Your task to perform on an android device: turn on location history Image 0: 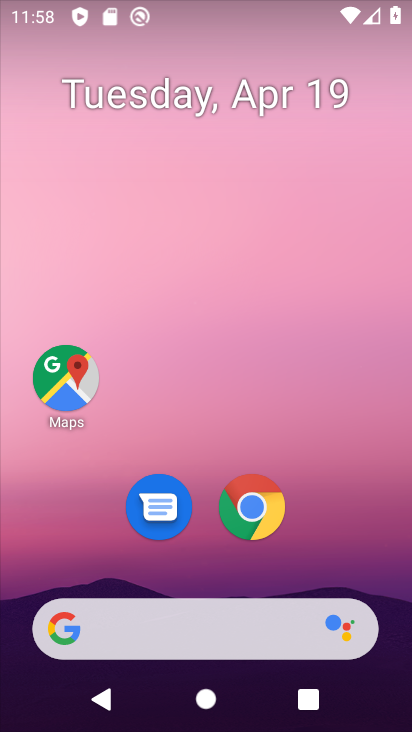
Step 0: drag from (370, 571) to (339, 178)
Your task to perform on an android device: turn on location history Image 1: 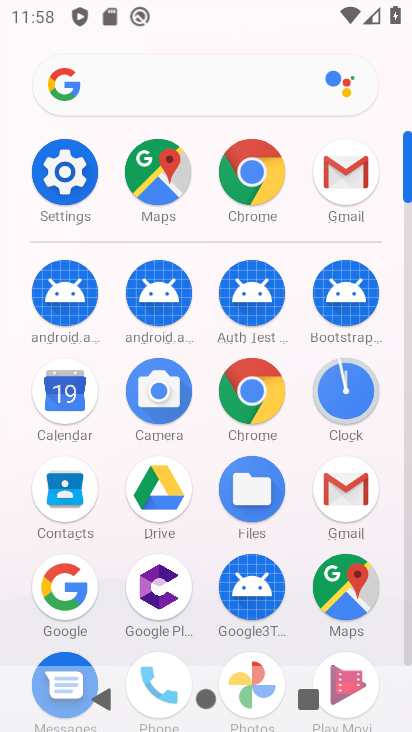
Step 1: click (81, 174)
Your task to perform on an android device: turn on location history Image 2: 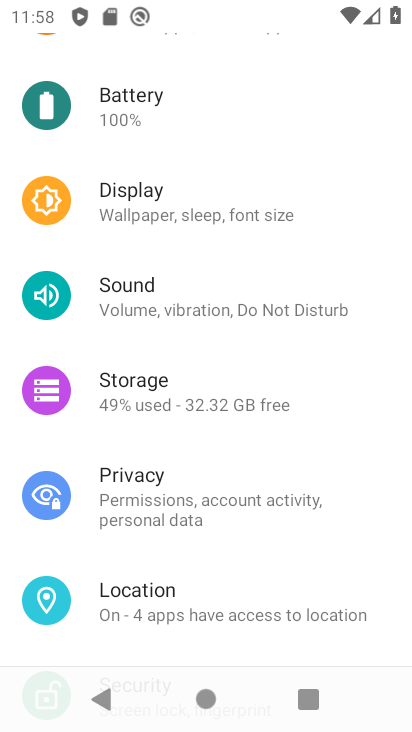
Step 2: click (211, 606)
Your task to perform on an android device: turn on location history Image 3: 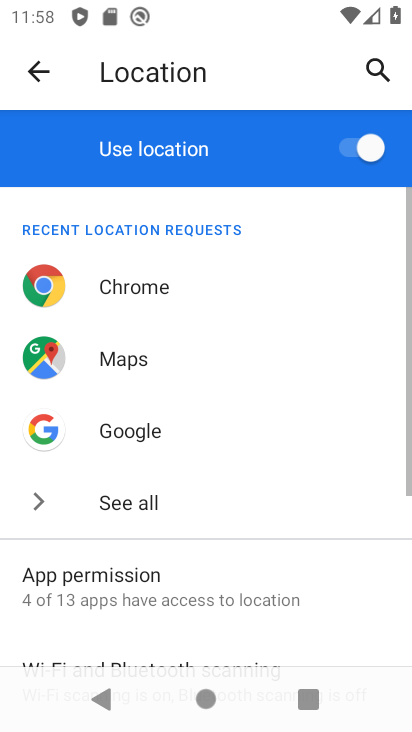
Step 3: drag from (382, 621) to (345, 336)
Your task to perform on an android device: turn on location history Image 4: 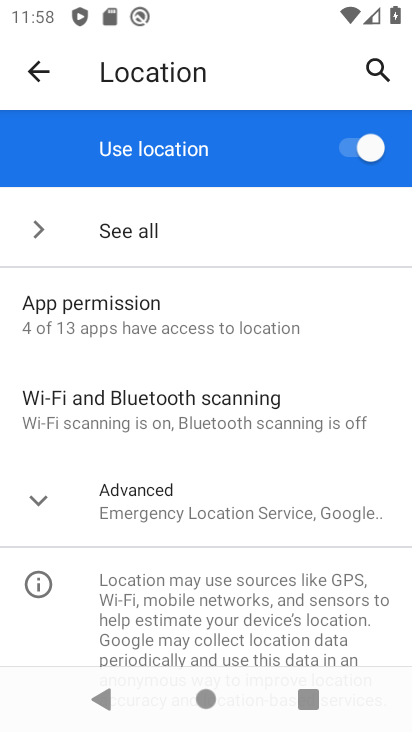
Step 4: click (219, 500)
Your task to perform on an android device: turn on location history Image 5: 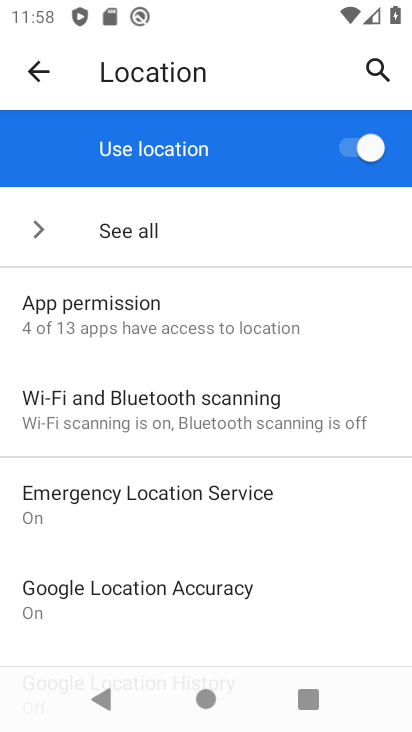
Step 5: drag from (330, 603) to (343, 396)
Your task to perform on an android device: turn on location history Image 6: 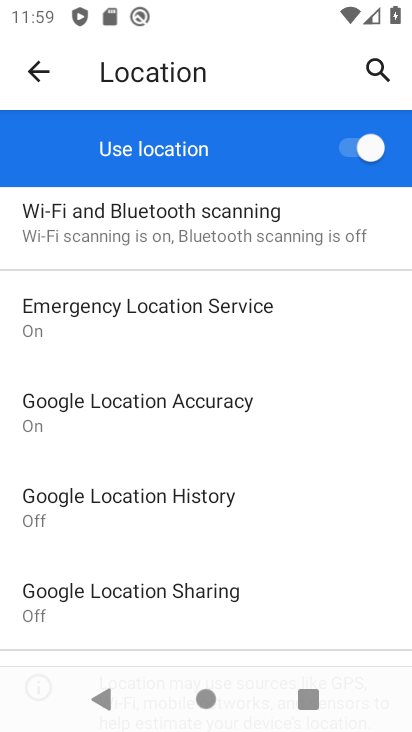
Step 6: click (128, 502)
Your task to perform on an android device: turn on location history Image 7: 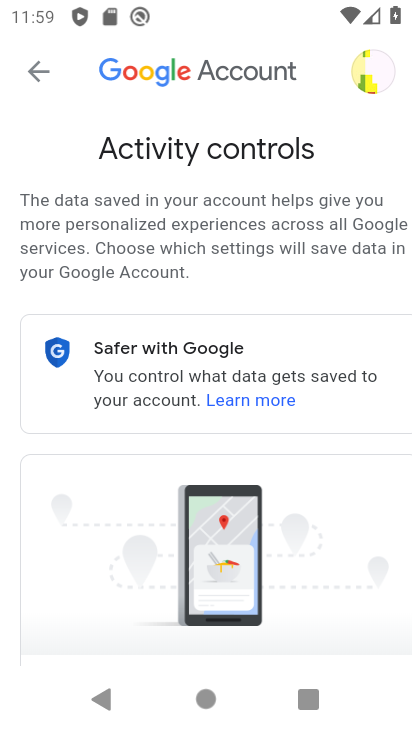
Step 7: drag from (367, 615) to (361, 285)
Your task to perform on an android device: turn on location history Image 8: 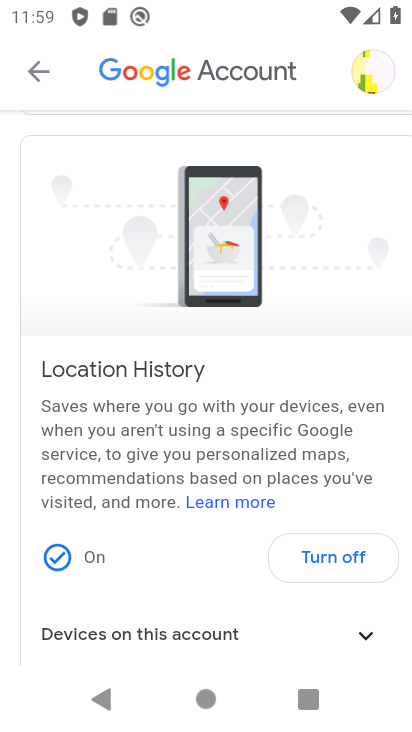
Step 8: click (326, 554)
Your task to perform on an android device: turn on location history Image 9: 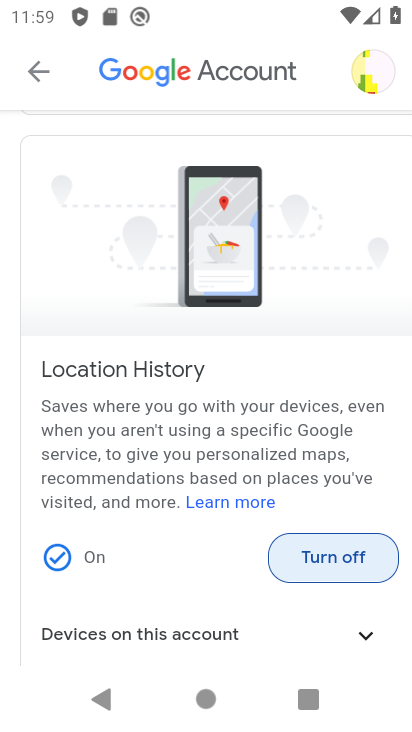
Step 9: click (326, 554)
Your task to perform on an android device: turn on location history Image 10: 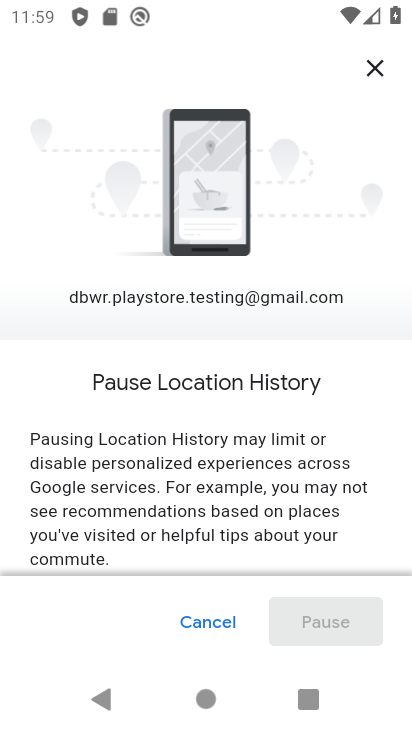
Step 10: drag from (326, 546) to (333, 235)
Your task to perform on an android device: turn on location history Image 11: 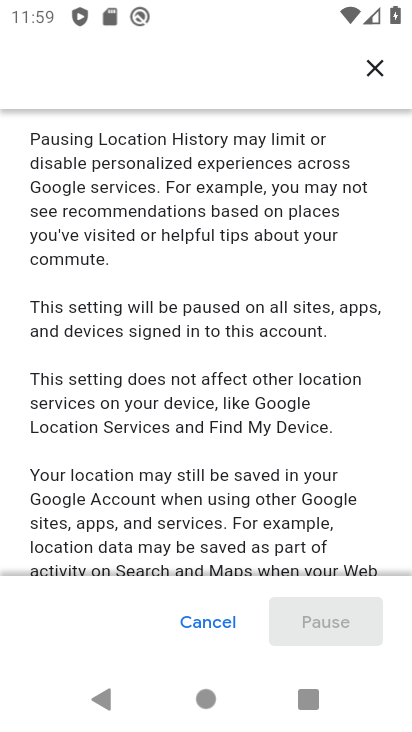
Step 11: drag from (329, 530) to (329, 157)
Your task to perform on an android device: turn on location history Image 12: 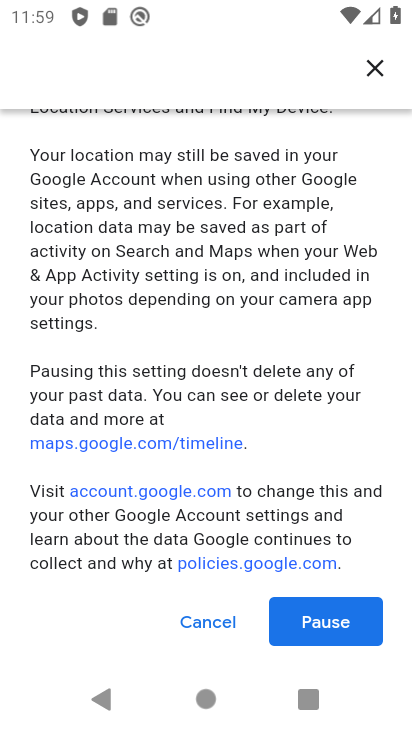
Step 12: drag from (298, 510) to (322, 147)
Your task to perform on an android device: turn on location history Image 13: 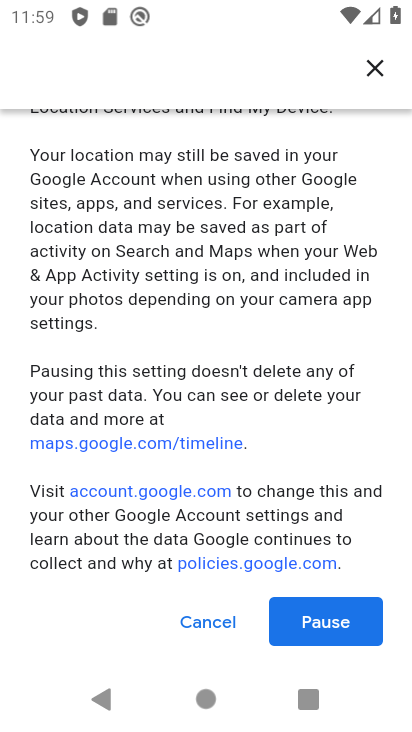
Step 13: click (337, 624)
Your task to perform on an android device: turn on location history Image 14: 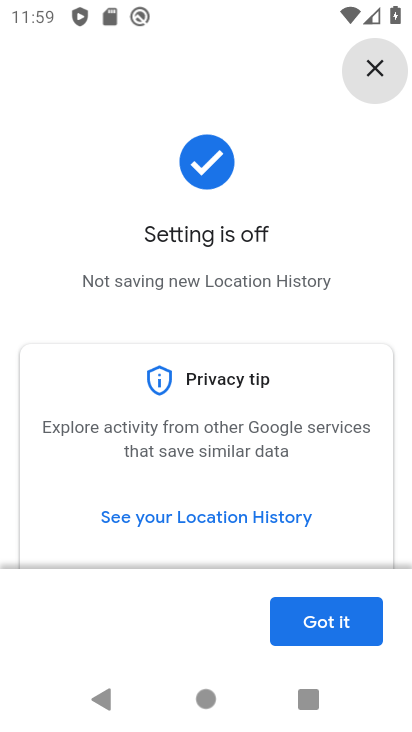
Step 14: task complete